Your task to perform on an android device: Go to notification settings Image 0: 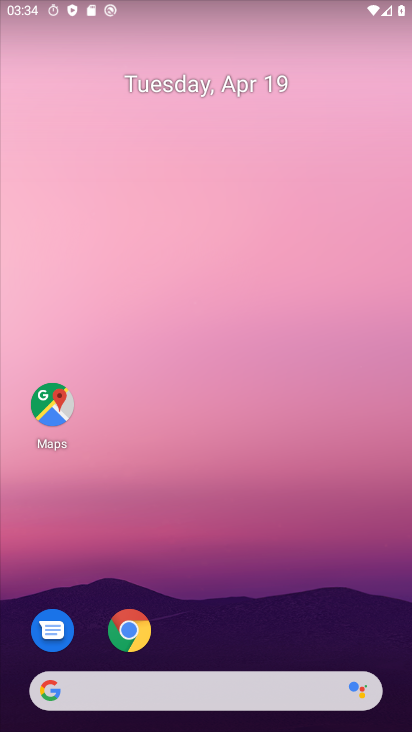
Step 0: drag from (246, 658) to (253, 30)
Your task to perform on an android device: Go to notification settings Image 1: 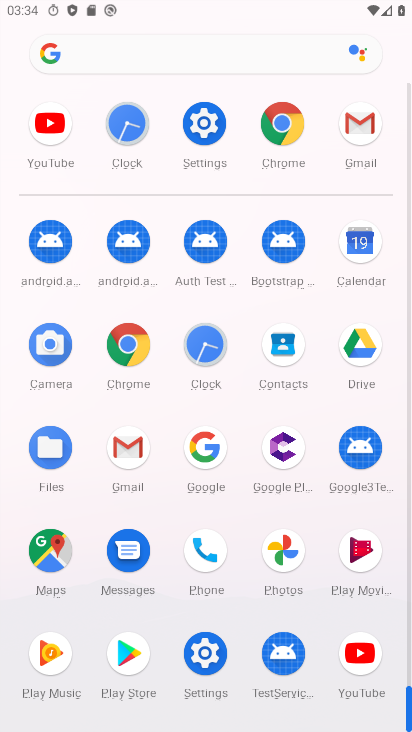
Step 1: click (216, 127)
Your task to perform on an android device: Go to notification settings Image 2: 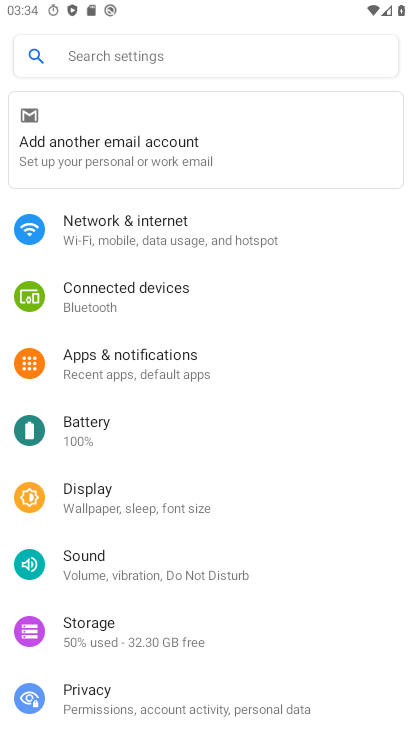
Step 2: click (170, 365)
Your task to perform on an android device: Go to notification settings Image 3: 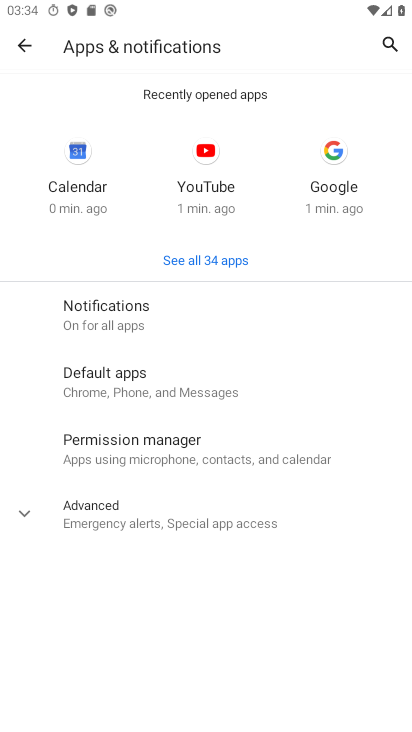
Step 3: click (106, 312)
Your task to perform on an android device: Go to notification settings Image 4: 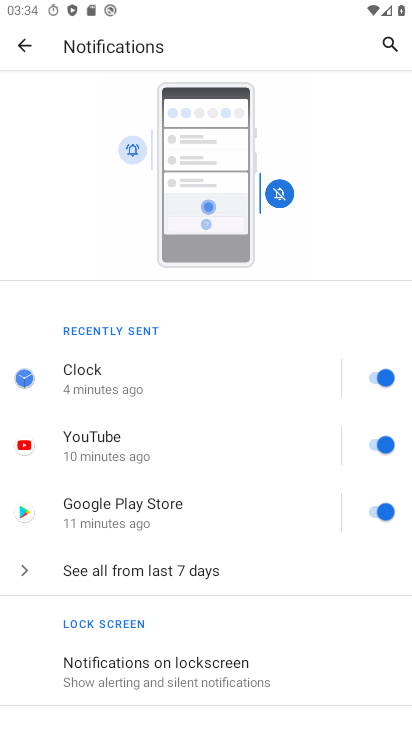
Step 4: task complete